Your task to perform on an android device: Open Google Chrome and open the bookmarks view Image 0: 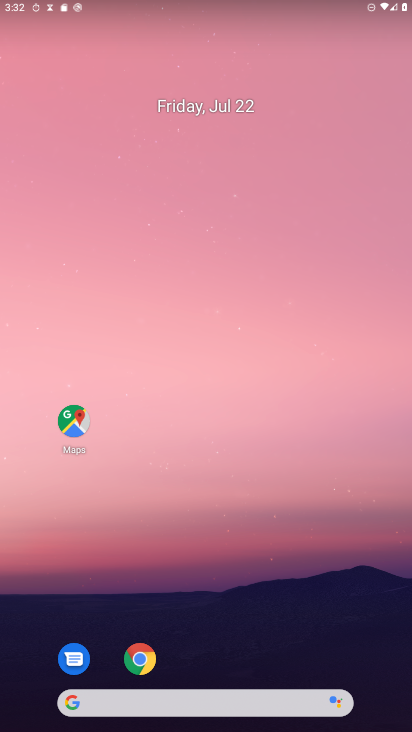
Step 0: drag from (305, 622) to (338, 74)
Your task to perform on an android device: Open Google Chrome and open the bookmarks view Image 1: 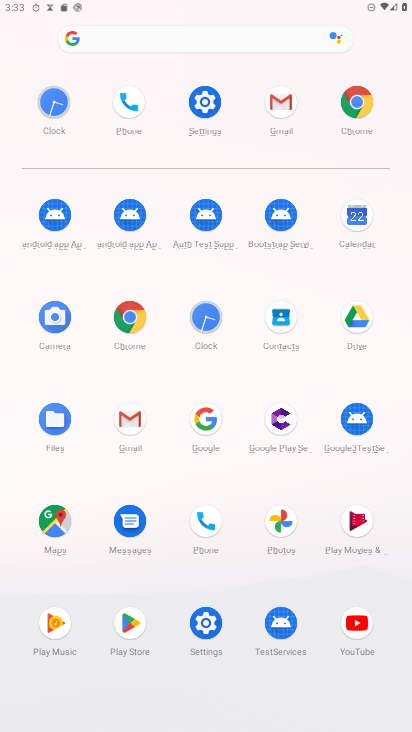
Step 1: click (357, 89)
Your task to perform on an android device: Open Google Chrome and open the bookmarks view Image 2: 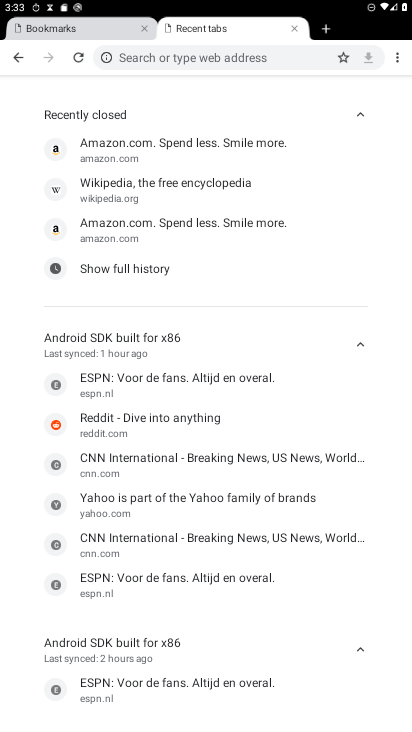
Step 2: task complete